Your task to perform on an android device: clear all cookies in the chrome app Image 0: 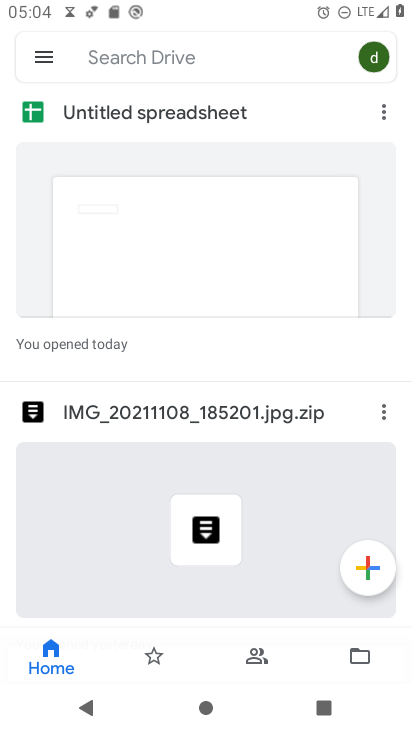
Step 0: press home button
Your task to perform on an android device: clear all cookies in the chrome app Image 1: 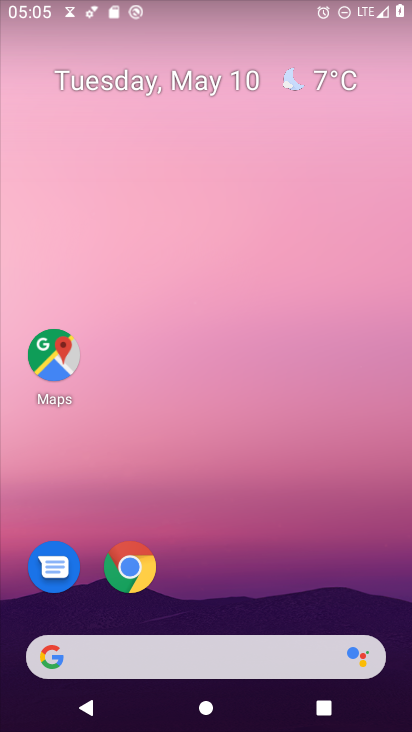
Step 1: click (130, 567)
Your task to perform on an android device: clear all cookies in the chrome app Image 2: 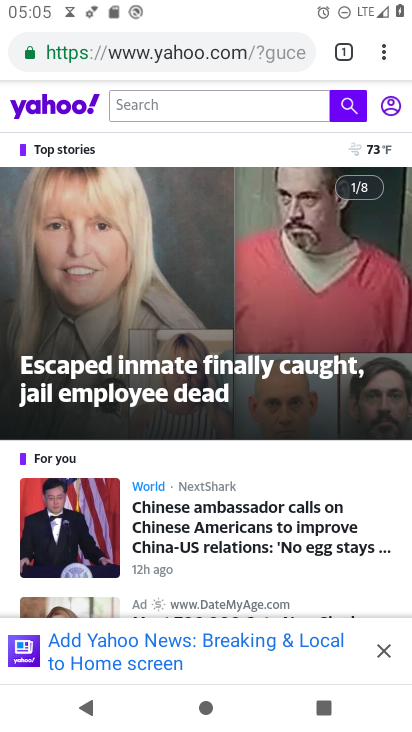
Step 2: click (385, 52)
Your task to perform on an android device: clear all cookies in the chrome app Image 3: 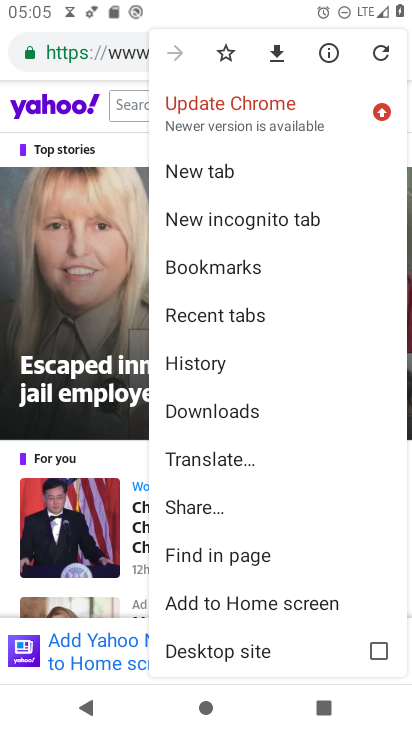
Step 3: drag from (235, 486) to (255, 403)
Your task to perform on an android device: clear all cookies in the chrome app Image 4: 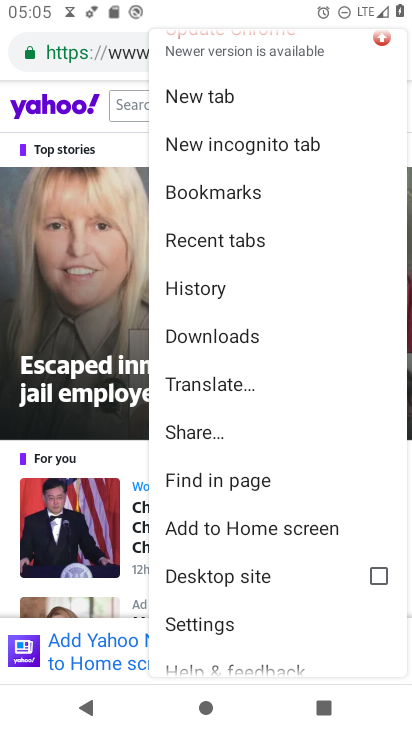
Step 4: click (202, 617)
Your task to perform on an android device: clear all cookies in the chrome app Image 5: 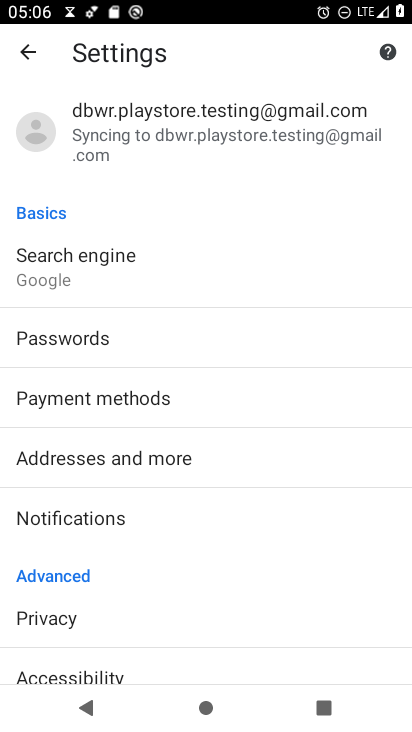
Step 5: click (64, 616)
Your task to perform on an android device: clear all cookies in the chrome app Image 6: 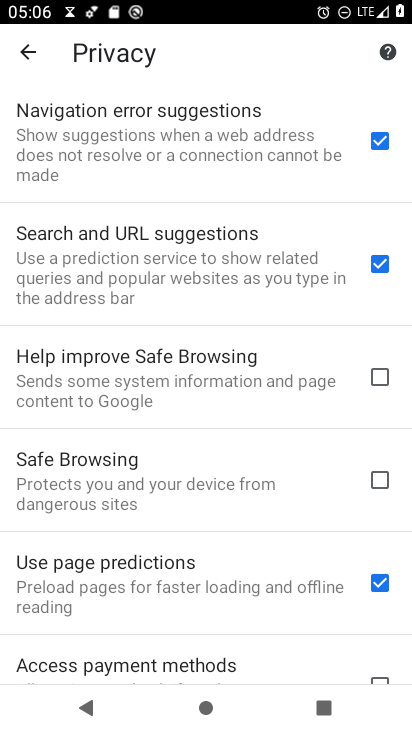
Step 6: drag from (147, 539) to (157, 319)
Your task to perform on an android device: clear all cookies in the chrome app Image 7: 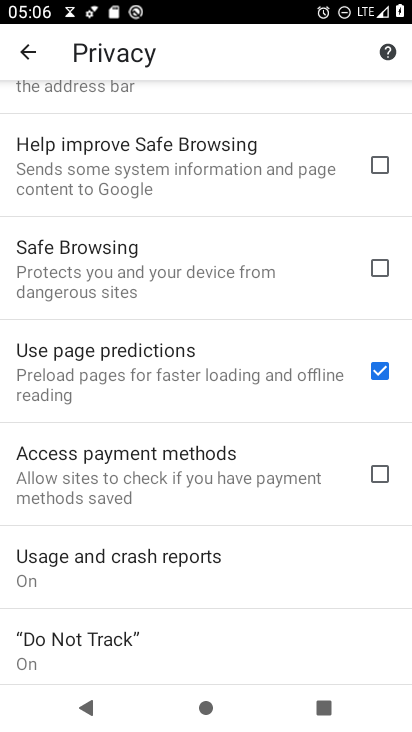
Step 7: drag from (164, 579) to (192, 340)
Your task to perform on an android device: clear all cookies in the chrome app Image 8: 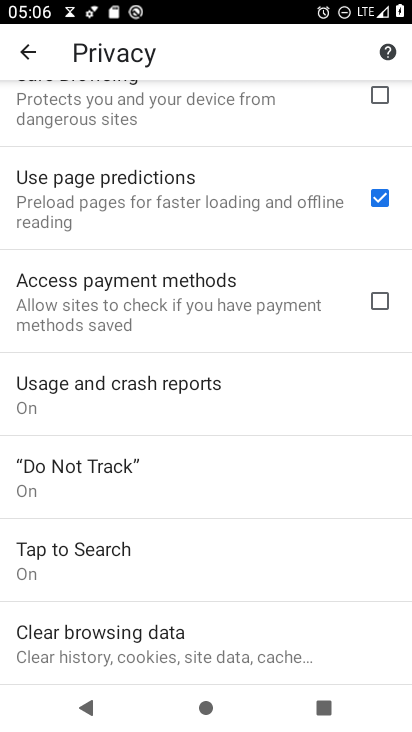
Step 8: click (144, 631)
Your task to perform on an android device: clear all cookies in the chrome app Image 9: 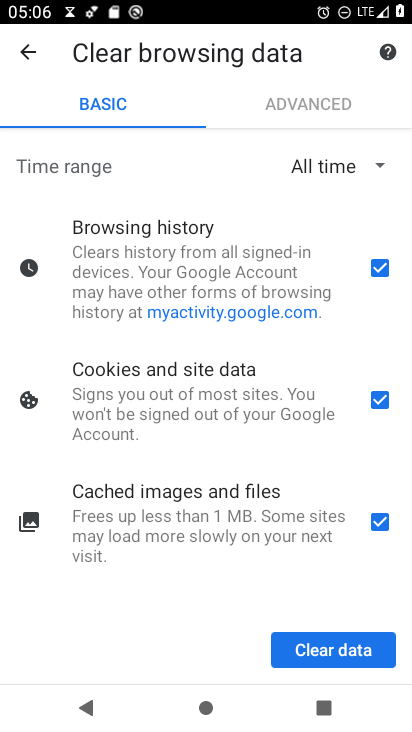
Step 9: click (313, 653)
Your task to perform on an android device: clear all cookies in the chrome app Image 10: 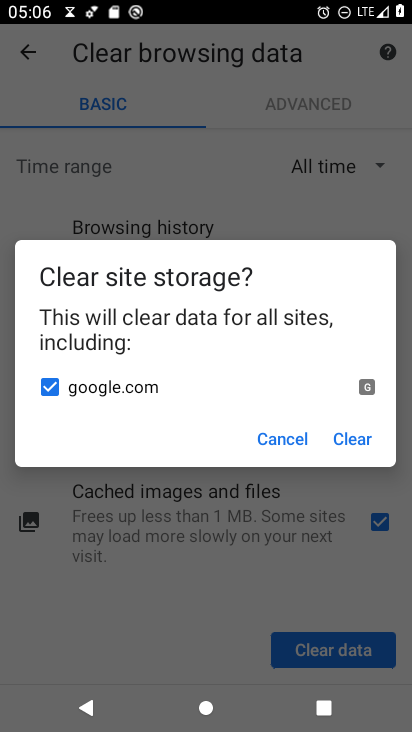
Step 10: click (350, 432)
Your task to perform on an android device: clear all cookies in the chrome app Image 11: 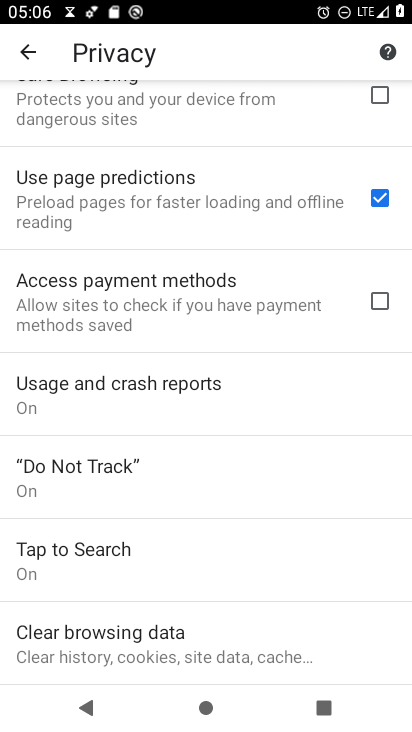
Step 11: task complete